Your task to perform on an android device: Add "apple airpods pro" to the cart on costco, then select checkout. Image 0: 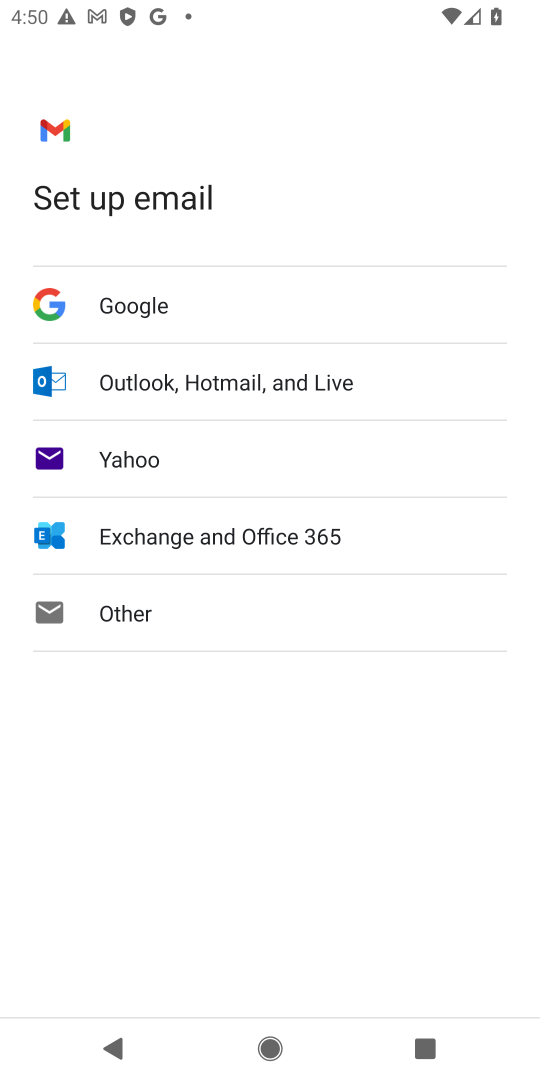
Step 0: press home button
Your task to perform on an android device: Add "apple airpods pro" to the cart on costco, then select checkout. Image 1: 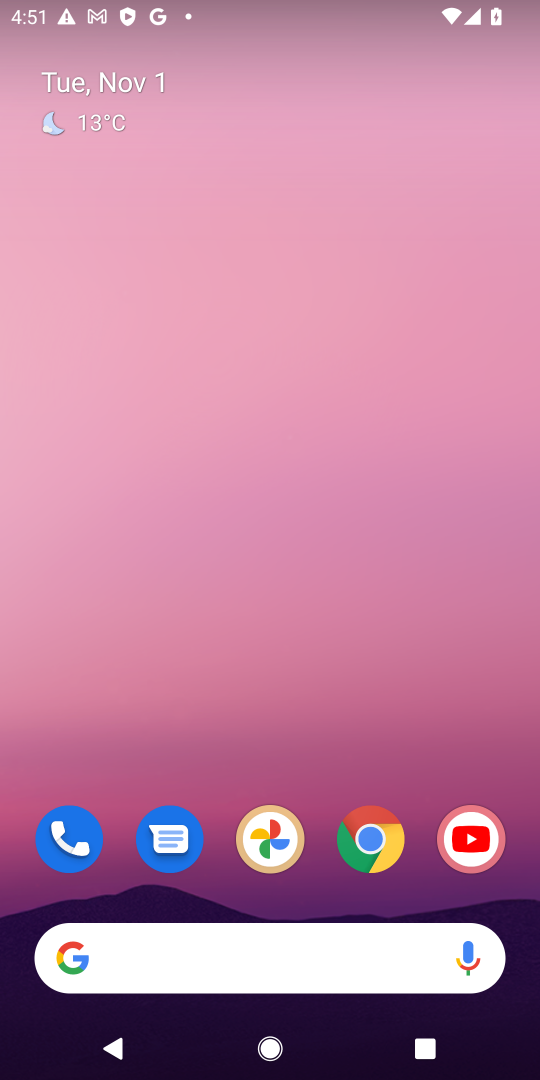
Step 1: drag from (332, 902) to (407, 212)
Your task to perform on an android device: Add "apple airpods pro" to the cart on costco, then select checkout. Image 2: 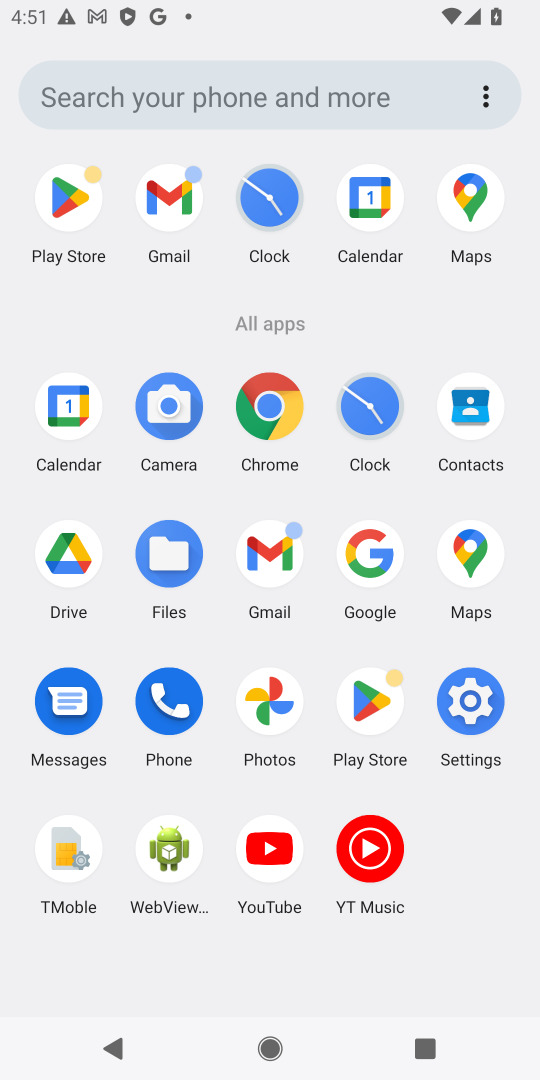
Step 2: click (271, 402)
Your task to perform on an android device: Add "apple airpods pro" to the cart on costco, then select checkout. Image 3: 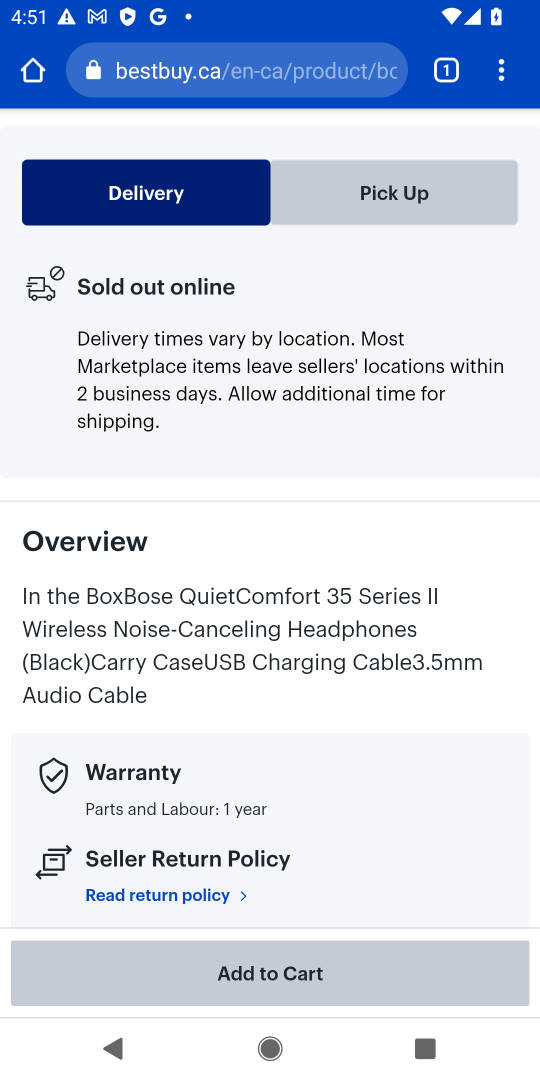
Step 3: click (306, 76)
Your task to perform on an android device: Add "apple airpods pro" to the cart on costco, then select checkout. Image 4: 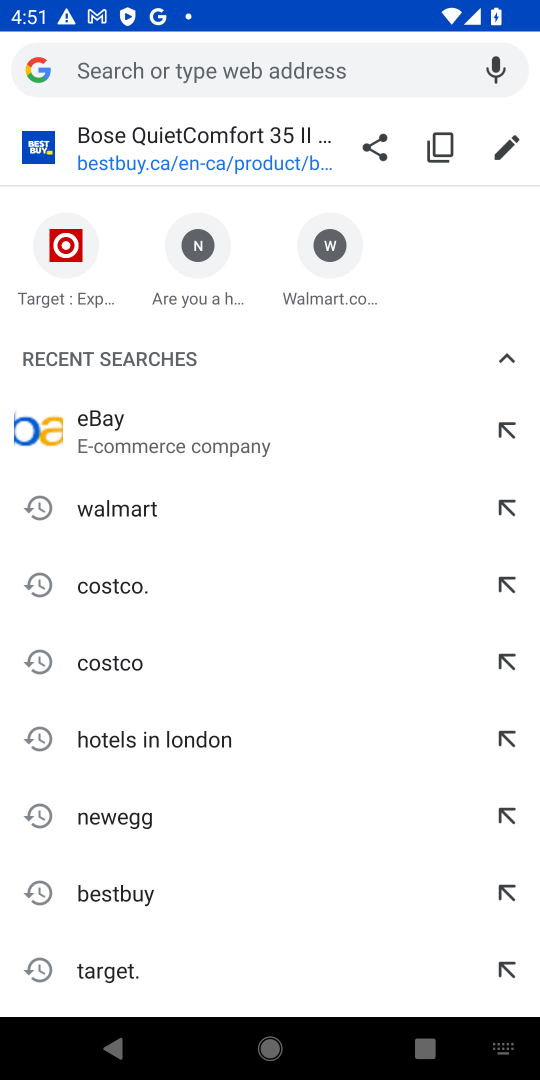
Step 4: type "costco.com"
Your task to perform on an android device: Add "apple airpods pro" to the cart on costco, then select checkout. Image 5: 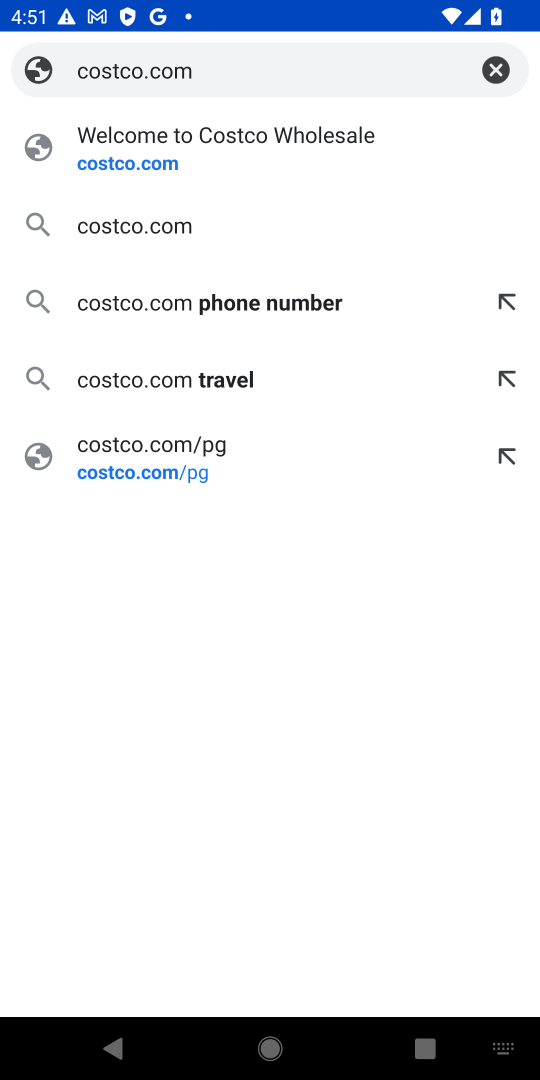
Step 5: press enter
Your task to perform on an android device: Add "apple airpods pro" to the cart on costco, then select checkout. Image 6: 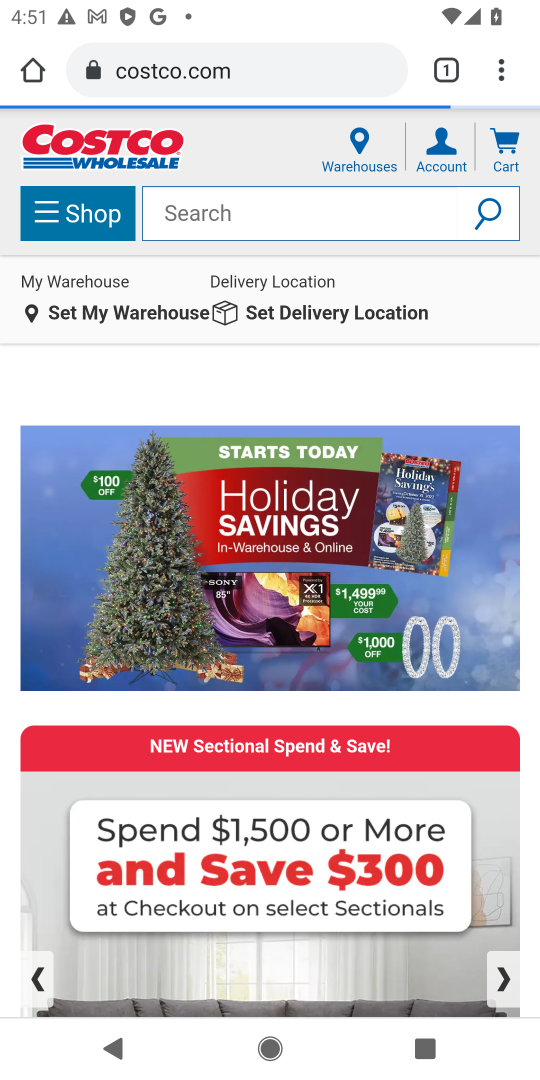
Step 6: click (288, 211)
Your task to perform on an android device: Add "apple airpods pro" to the cart on costco, then select checkout. Image 7: 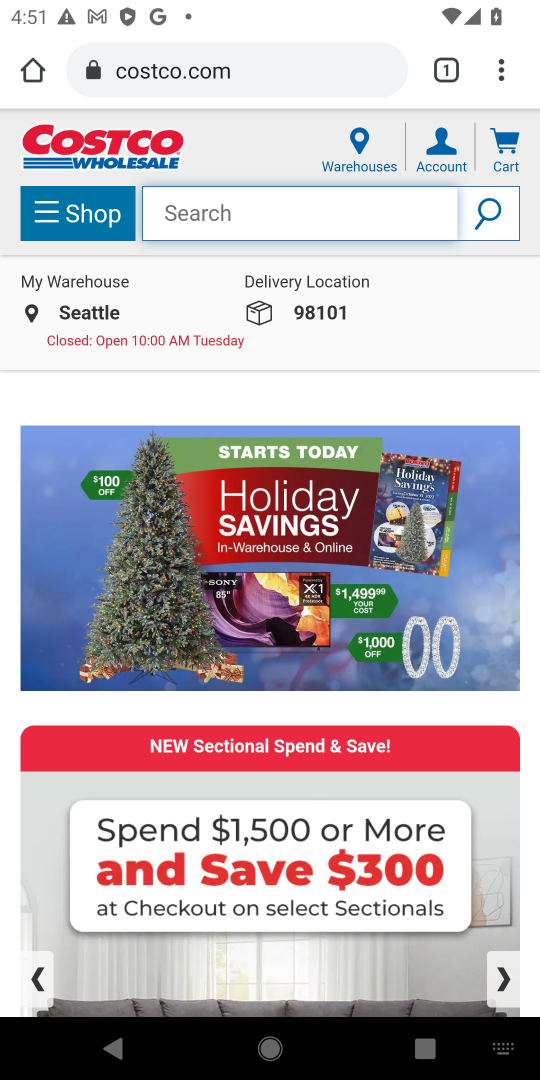
Step 7: type "apple airpods pro"
Your task to perform on an android device: Add "apple airpods pro" to the cart on costco, then select checkout. Image 8: 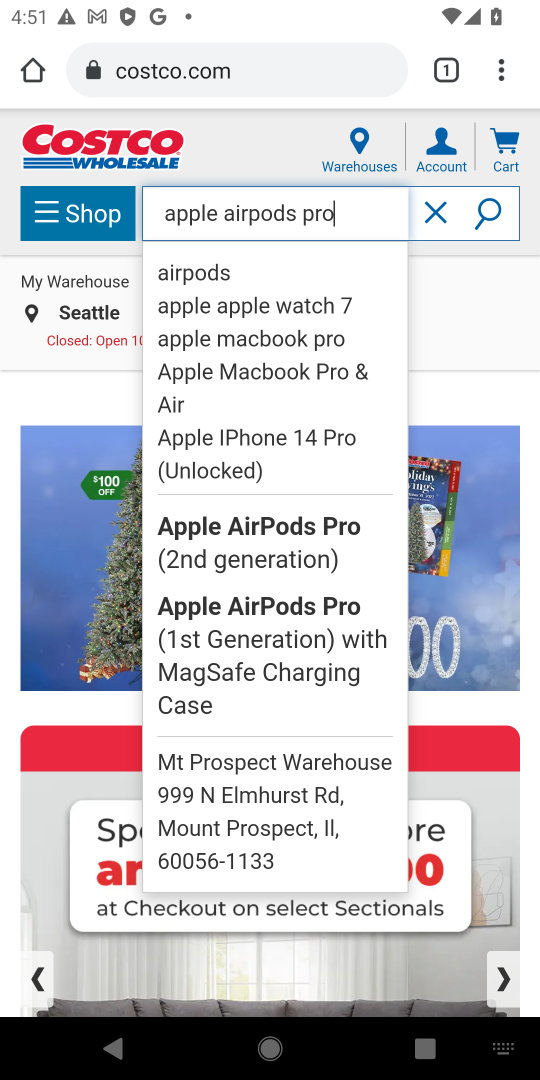
Step 8: press enter
Your task to perform on an android device: Add "apple airpods pro" to the cart on costco, then select checkout. Image 9: 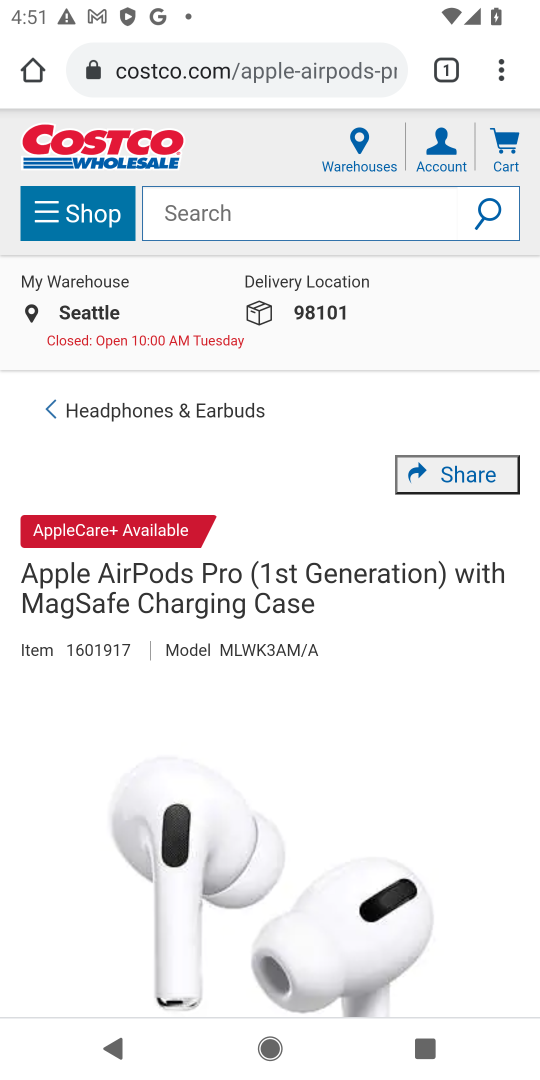
Step 9: drag from (263, 790) to (290, 384)
Your task to perform on an android device: Add "apple airpods pro" to the cart on costco, then select checkout. Image 10: 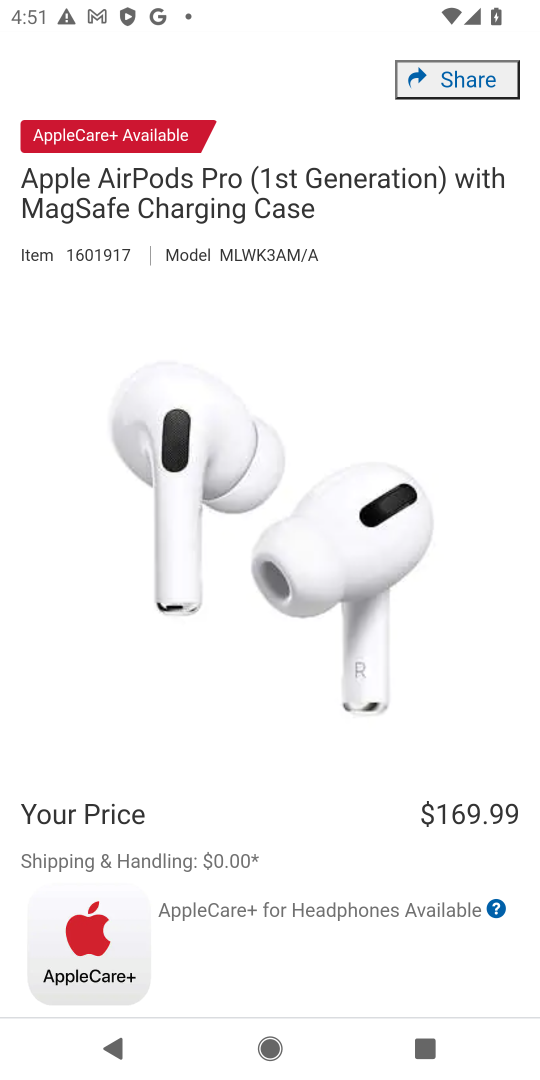
Step 10: click (204, 232)
Your task to perform on an android device: Add "apple airpods pro" to the cart on costco, then select checkout. Image 11: 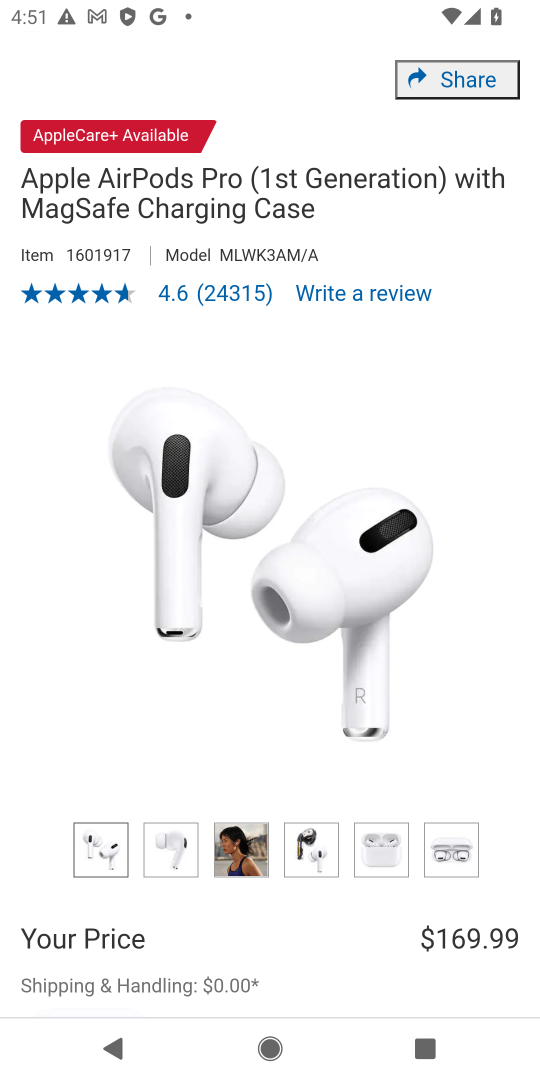
Step 11: click (220, 195)
Your task to perform on an android device: Add "apple airpods pro" to the cart on costco, then select checkout. Image 12: 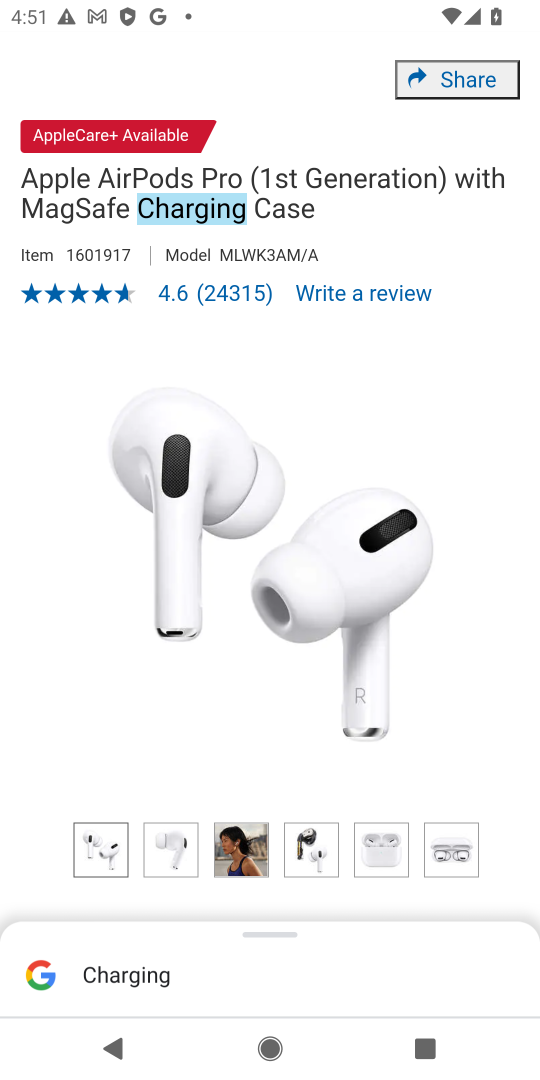
Step 12: drag from (326, 408) to (390, 5)
Your task to perform on an android device: Add "apple airpods pro" to the cart on costco, then select checkout. Image 13: 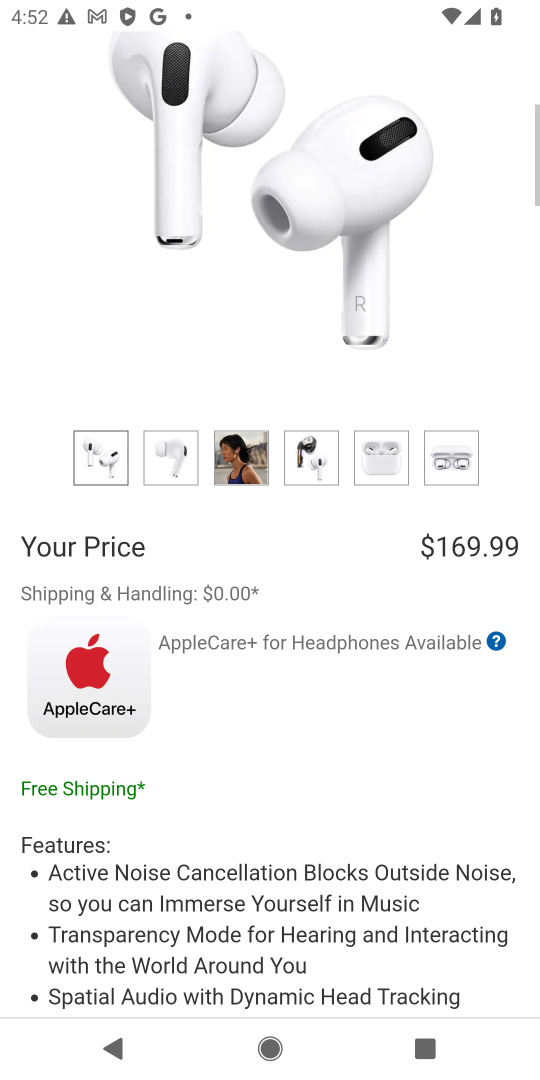
Step 13: drag from (276, 805) to (335, 107)
Your task to perform on an android device: Add "apple airpods pro" to the cart on costco, then select checkout. Image 14: 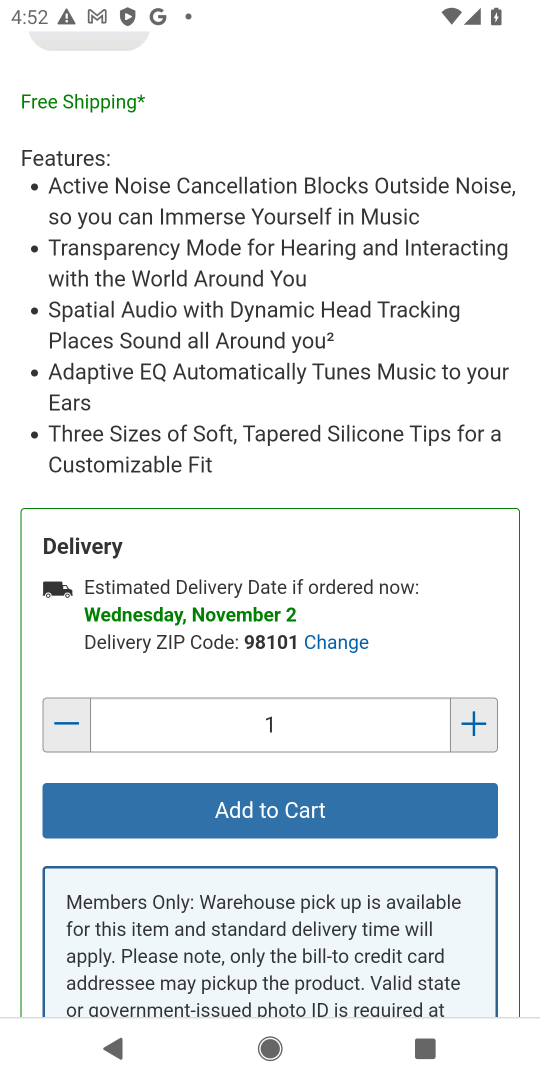
Step 14: click (257, 811)
Your task to perform on an android device: Add "apple airpods pro" to the cart on costco, then select checkout. Image 15: 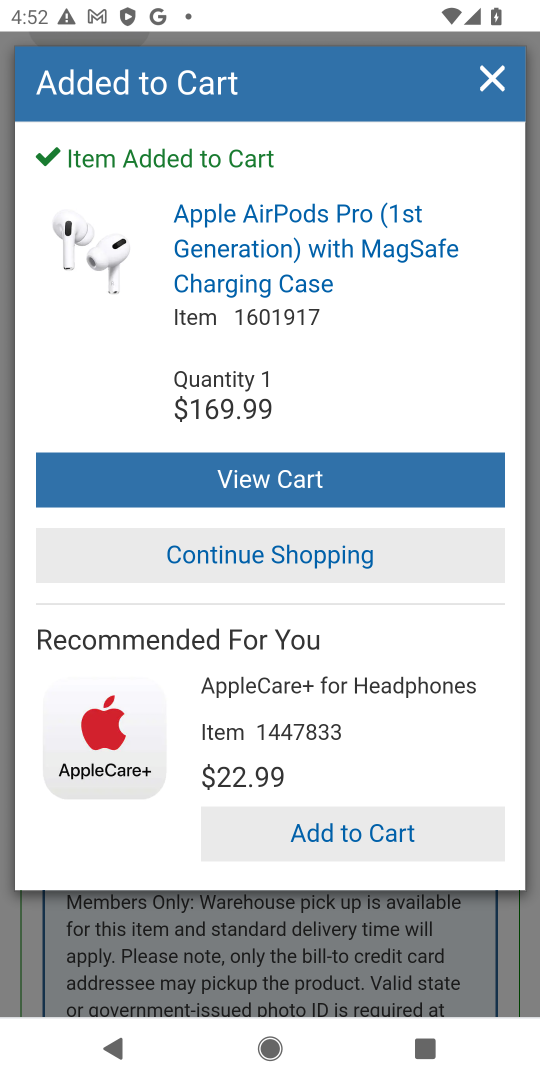
Step 15: drag from (328, 489) to (375, 596)
Your task to perform on an android device: Add "apple airpods pro" to the cart on costco, then select checkout. Image 16: 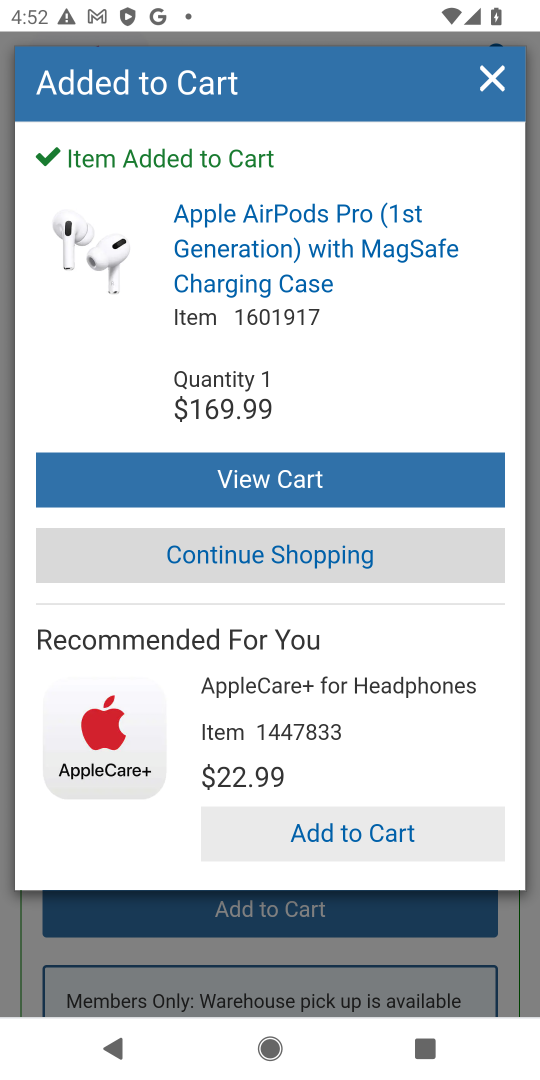
Step 16: click (382, 471)
Your task to perform on an android device: Add "apple airpods pro" to the cart on costco, then select checkout. Image 17: 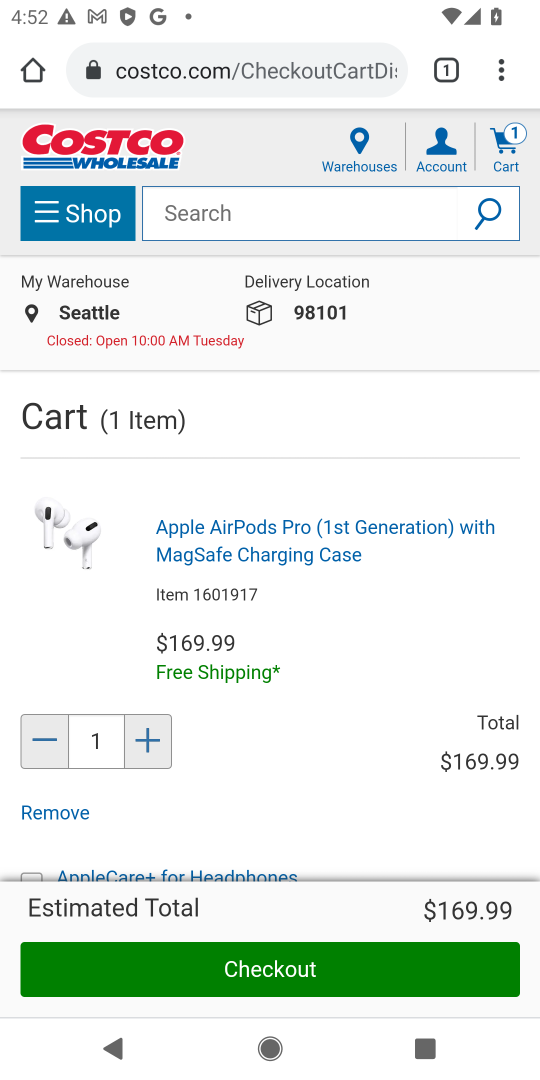
Step 17: click (317, 968)
Your task to perform on an android device: Add "apple airpods pro" to the cart on costco, then select checkout. Image 18: 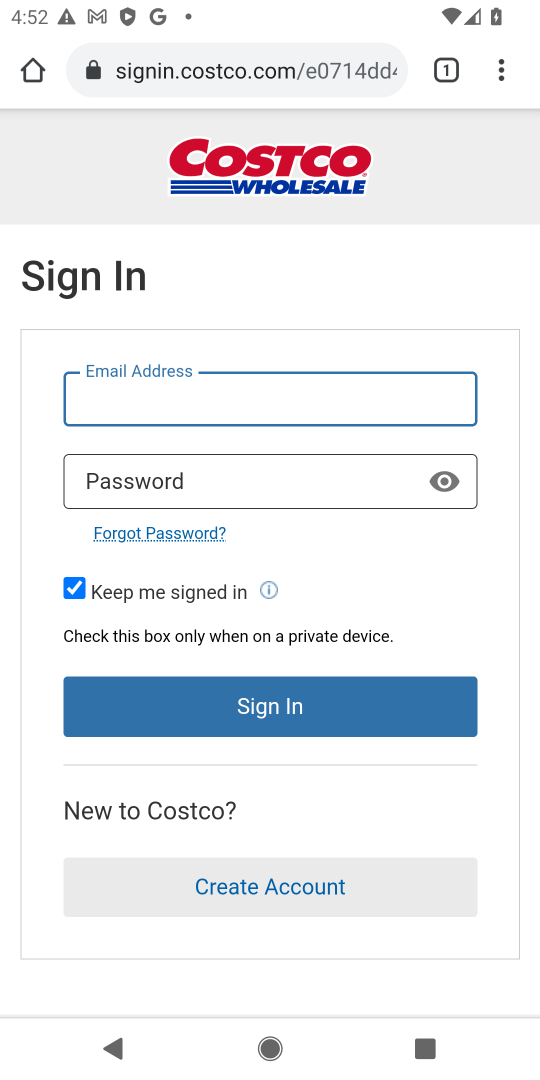
Step 18: task complete